Your task to perform on an android device: Open Google Chrome Image 0: 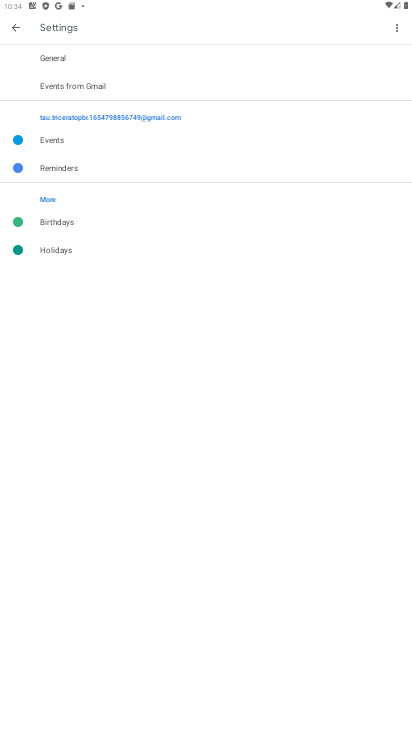
Step 0: press home button
Your task to perform on an android device: Open Google Chrome Image 1: 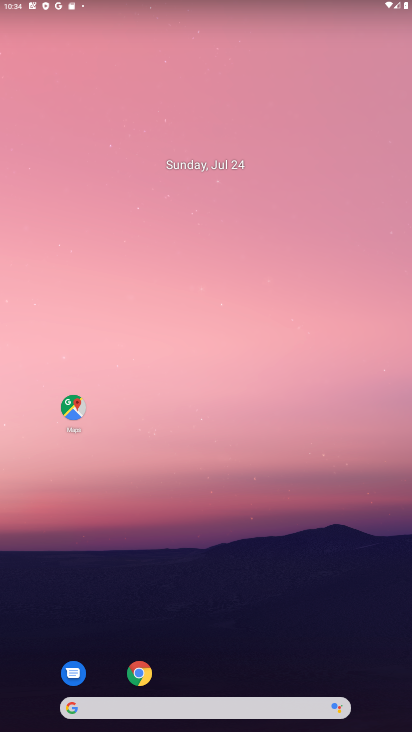
Step 1: click (128, 668)
Your task to perform on an android device: Open Google Chrome Image 2: 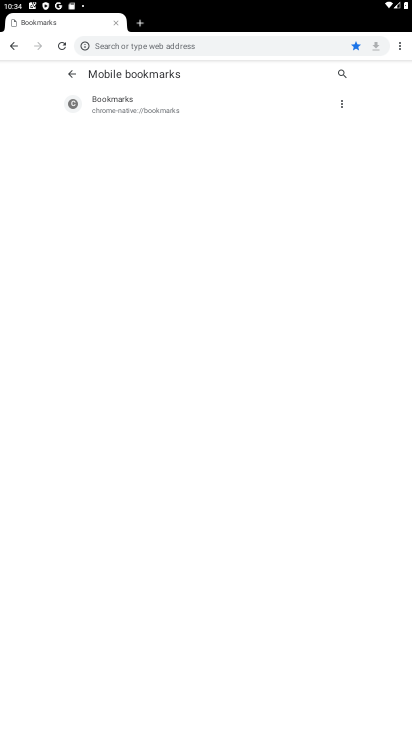
Step 2: click (142, 17)
Your task to perform on an android device: Open Google Chrome Image 3: 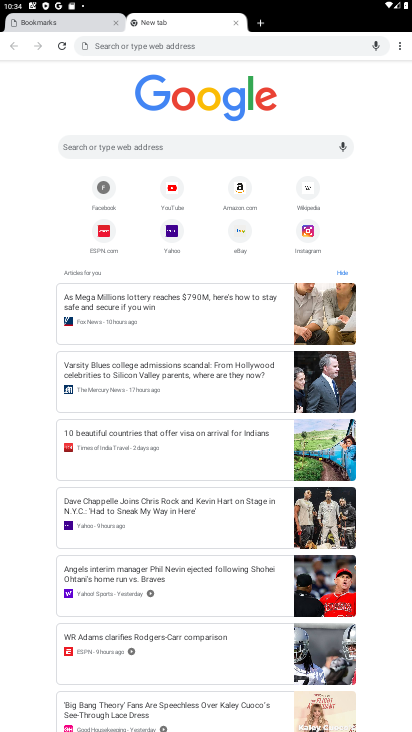
Step 3: task complete